Your task to perform on an android device: allow cookies in the chrome app Image 0: 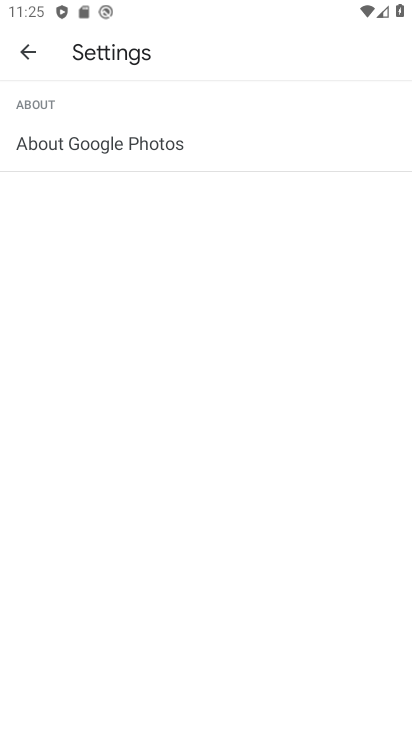
Step 0: drag from (0, 0) to (410, 388)
Your task to perform on an android device: allow cookies in the chrome app Image 1: 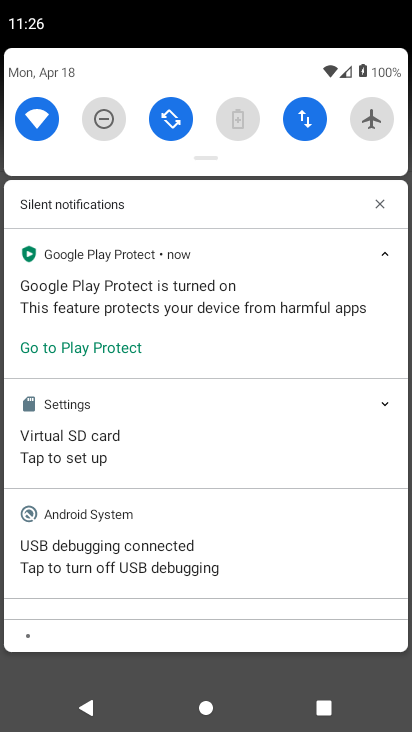
Step 1: press home button
Your task to perform on an android device: allow cookies in the chrome app Image 2: 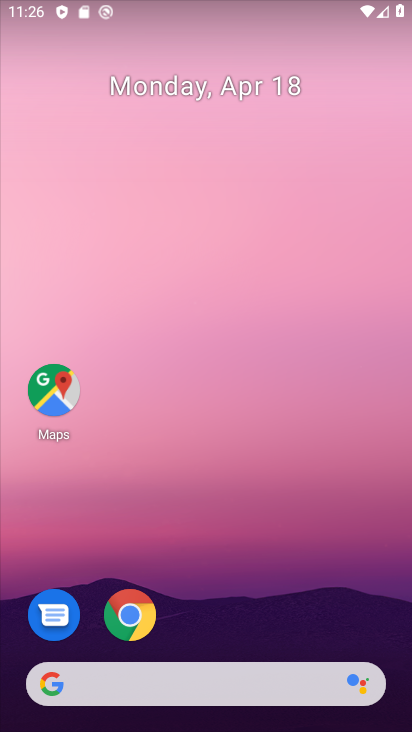
Step 2: click (133, 630)
Your task to perform on an android device: allow cookies in the chrome app Image 3: 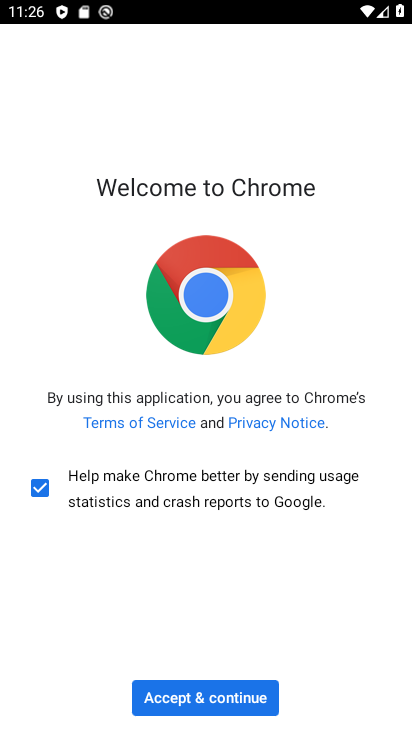
Step 3: click (245, 701)
Your task to perform on an android device: allow cookies in the chrome app Image 4: 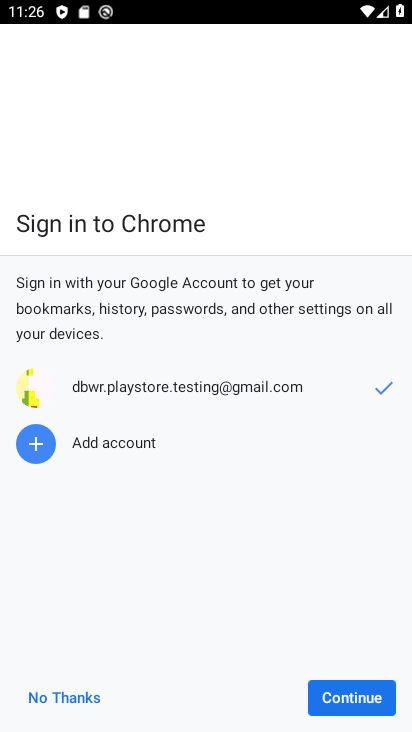
Step 4: click (353, 685)
Your task to perform on an android device: allow cookies in the chrome app Image 5: 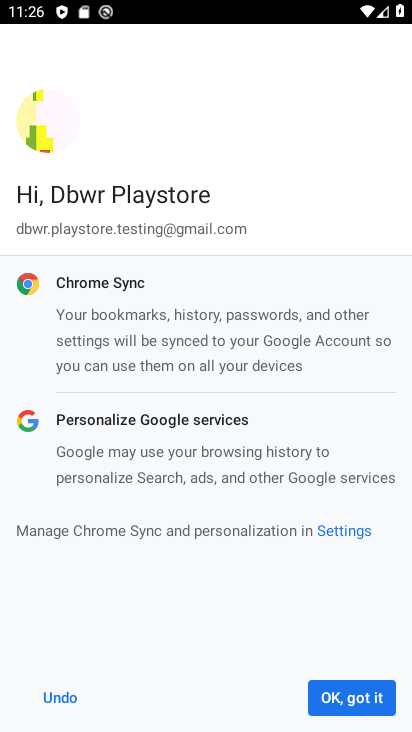
Step 5: click (353, 686)
Your task to perform on an android device: allow cookies in the chrome app Image 6: 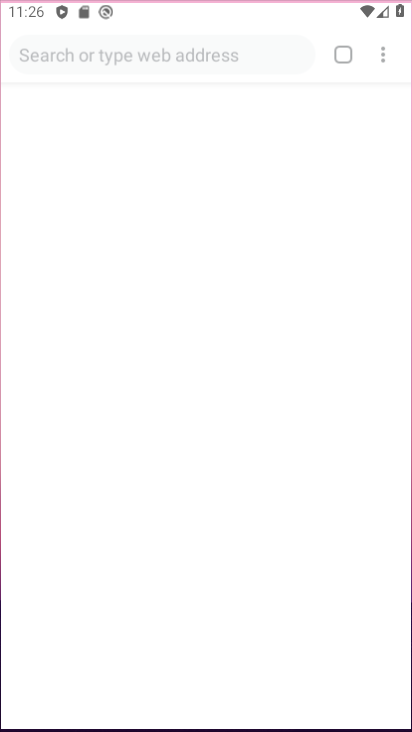
Step 6: click (353, 686)
Your task to perform on an android device: allow cookies in the chrome app Image 7: 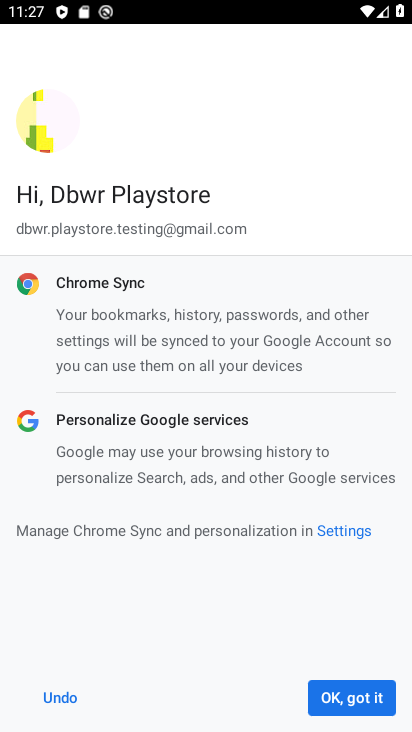
Step 7: click (365, 704)
Your task to perform on an android device: allow cookies in the chrome app Image 8: 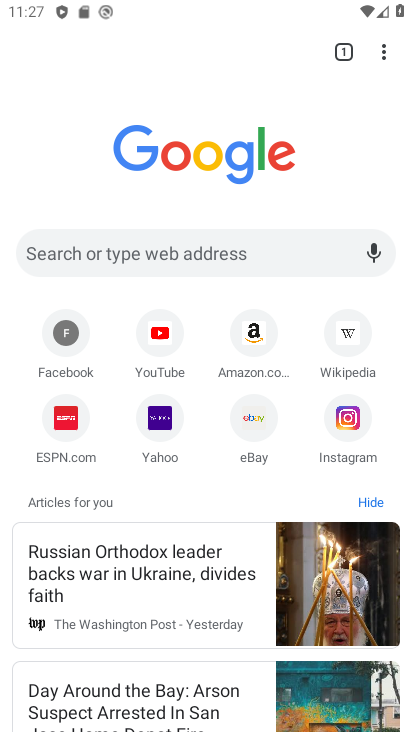
Step 8: click (383, 42)
Your task to perform on an android device: allow cookies in the chrome app Image 9: 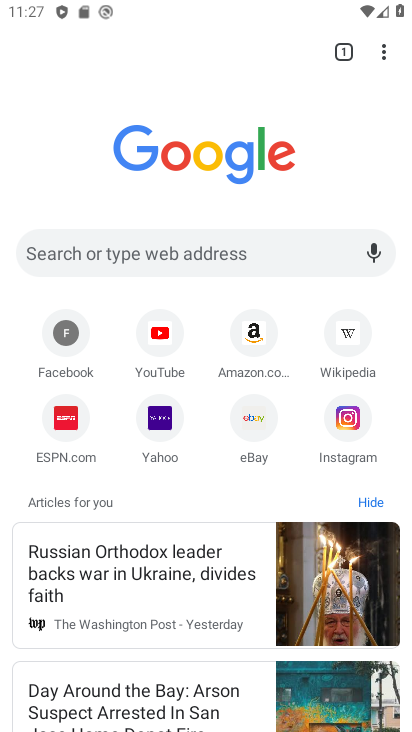
Step 9: click (385, 53)
Your task to perform on an android device: allow cookies in the chrome app Image 10: 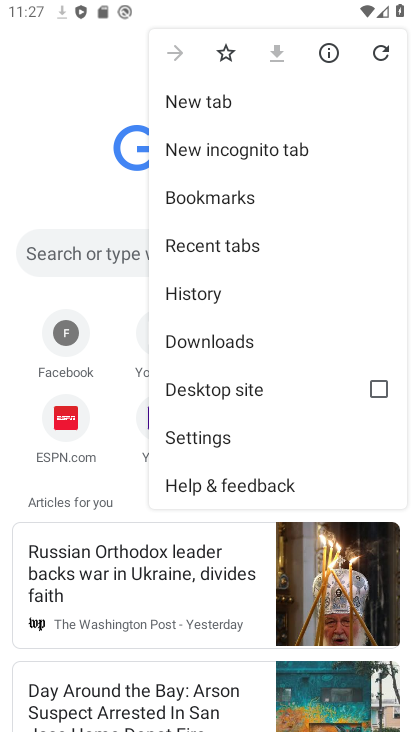
Step 10: click (236, 441)
Your task to perform on an android device: allow cookies in the chrome app Image 11: 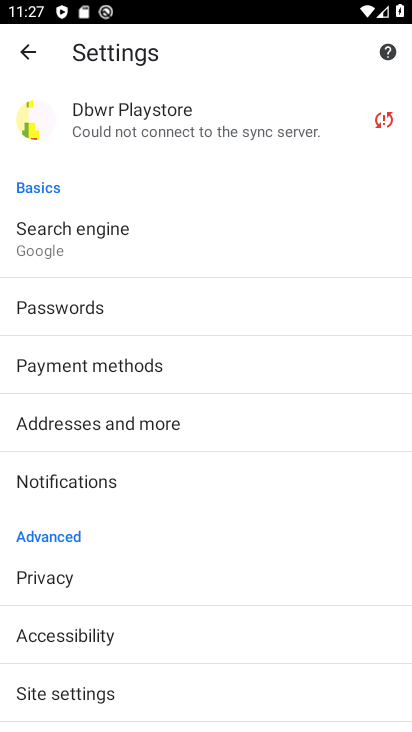
Step 11: drag from (236, 429) to (225, 227)
Your task to perform on an android device: allow cookies in the chrome app Image 12: 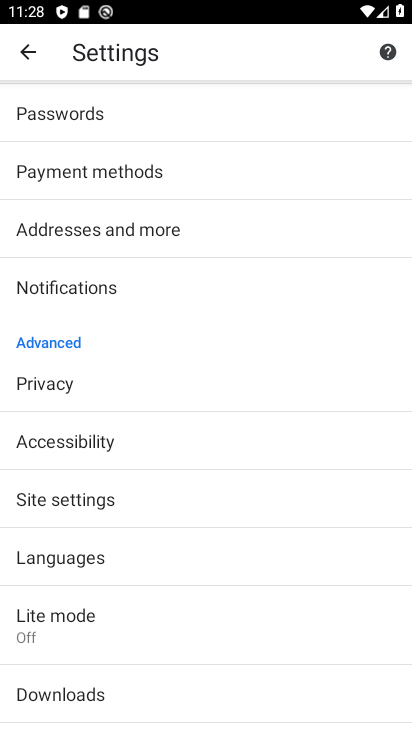
Step 12: drag from (250, 382) to (213, 128)
Your task to perform on an android device: allow cookies in the chrome app Image 13: 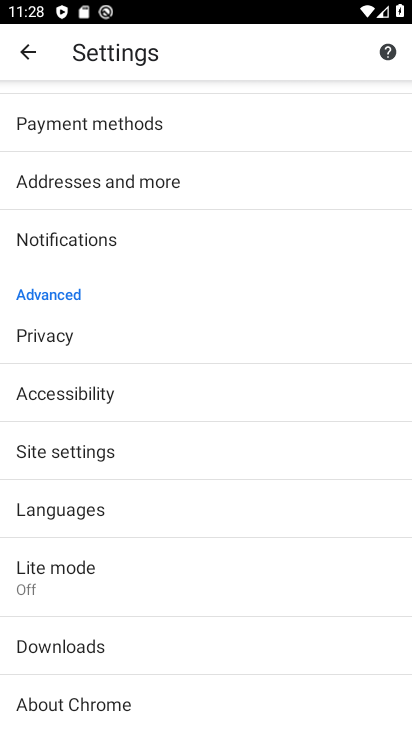
Step 13: click (50, 447)
Your task to perform on an android device: allow cookies in the chrome app Image 14: 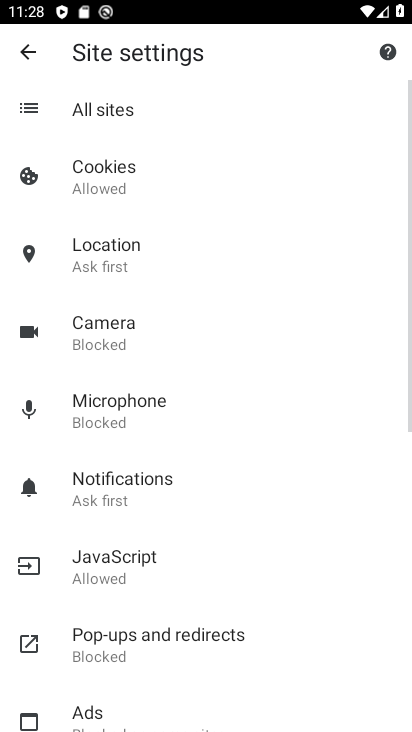
Step 14: click (104, 171)
Your task to perform on an android device: allow cookies in the chrome app Image 15: 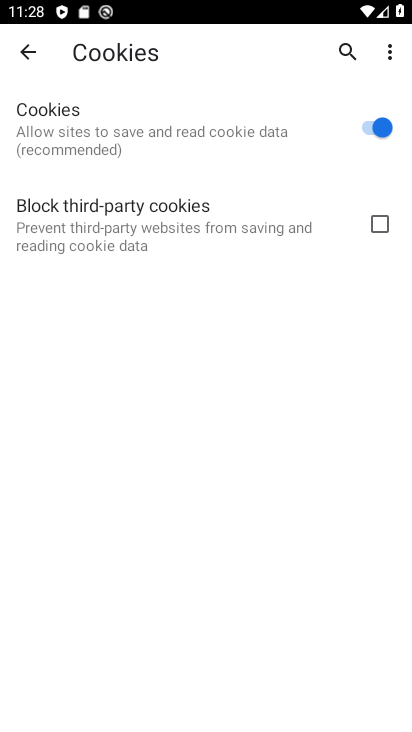
Step 15: task complete